Your task to perform on an android device: Add razer blackwidow to the cart on costco.com, then select checkout. Image 0: 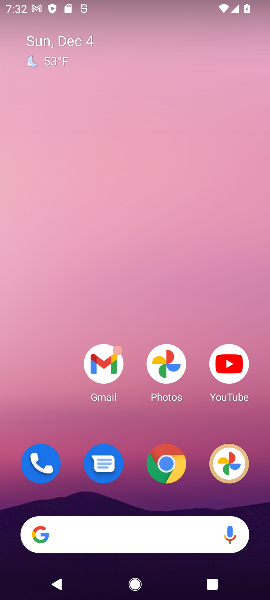
Step 0: click (119, 543)
Your task to perform on an android device: Add razer blackwidow to the cart on costco.com, then select checkout. Image 1: 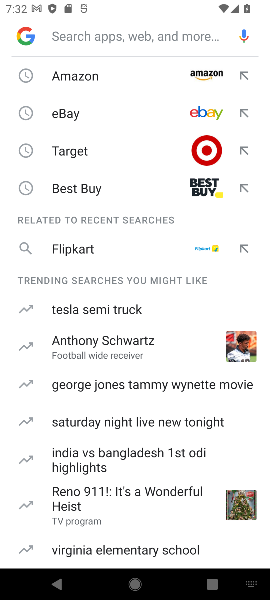
Step 1: type "costco.com"
Your task to perform on an android device: Add razer blackwidow to the cart on costco.com, then select checkout. Image 2: 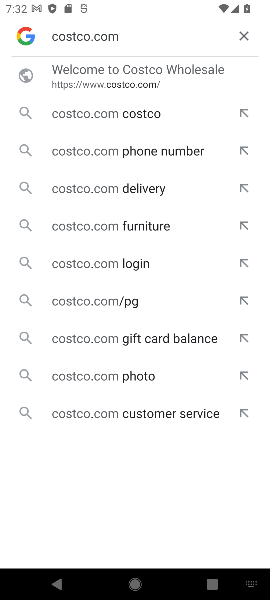
Step 2: click (157, 93)
Your task to perform on an android device: Add razer blackwidow to the cart on costco.com, then select checkout. Image 3: 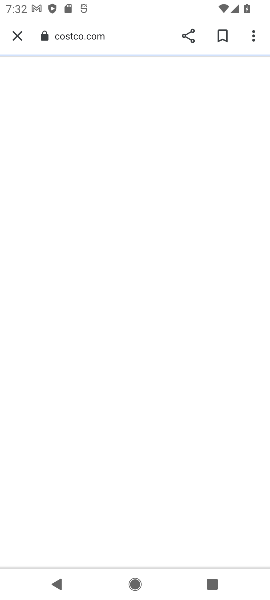
Step 3: task complete